Your task to perform on an android device: Open calendar and show me the second week of next month Image 0: 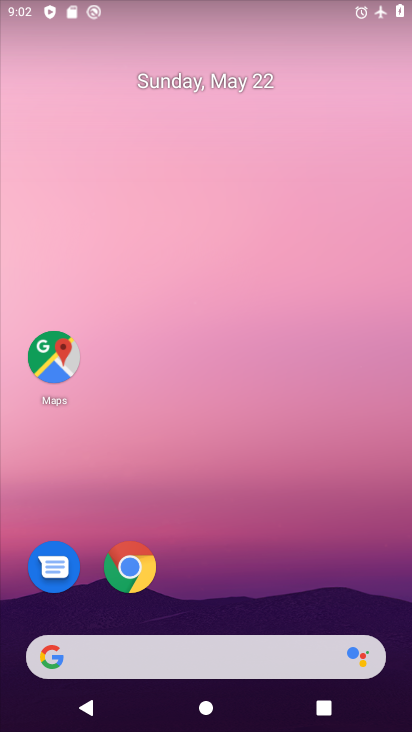
Step 0: drag from (206, 609) to (270, 7)
Your task to perform on an android device: Open calendar and show me the second week of next month Image 1: 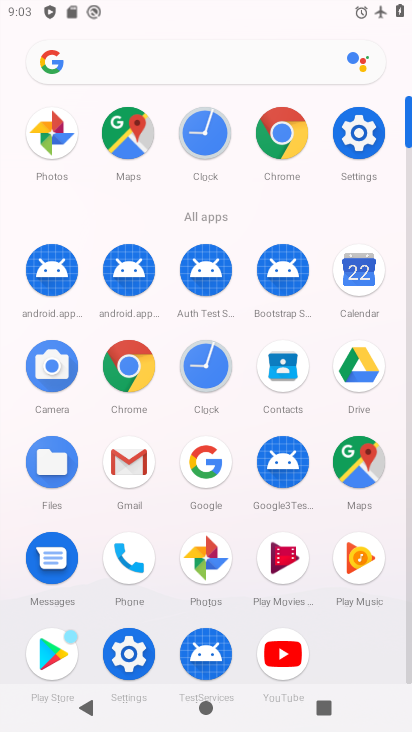
Step 1: click (351, 281)
Your task to perform on an android device: Open calendar and show me the second week of next month Image 2: 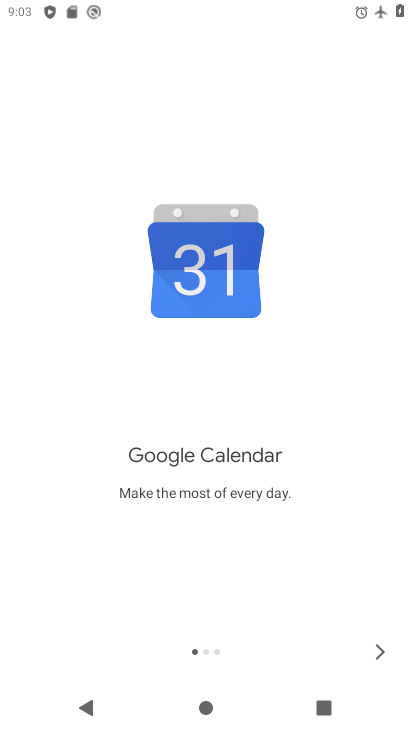
Step 2: click (381, 649)
Your task to perform on an android device: Open calendar and show me the second week of next month Image 3: 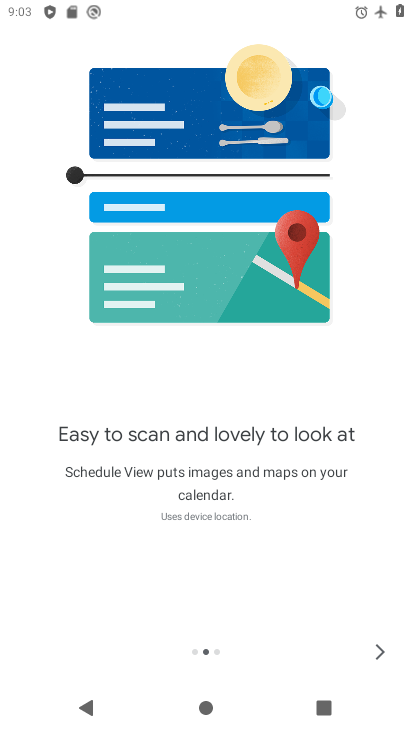
Step 3: click (377, 645)
Your task to perform on an android device: Open calendar and show me the second week of next month Image 4: 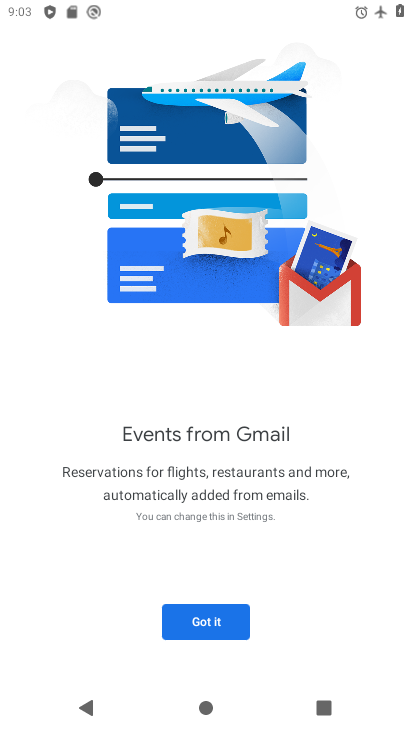
Step 4: click (201, 628)
Your task to perform on an android device: Open calendar and show me the second week of next month Image 5: 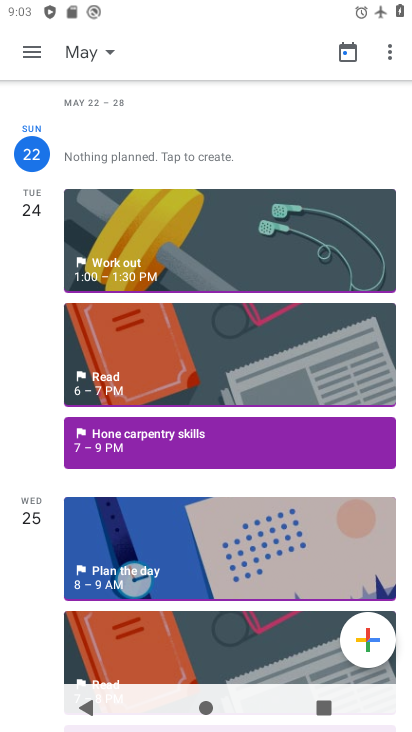
Step 5: click (26, 53)
Your task to perform on an android device: Open calendar and show me the second week of next month Image 6: 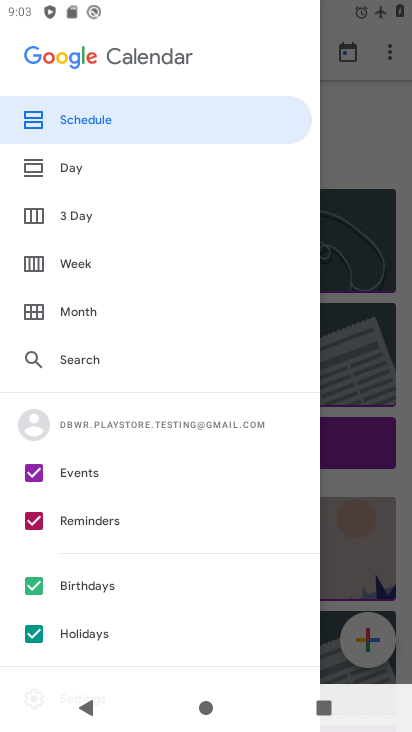
Step 6: click (82, 269)
Your task to perform on an android device: Open calendar and show me the second week of next month Image 7: 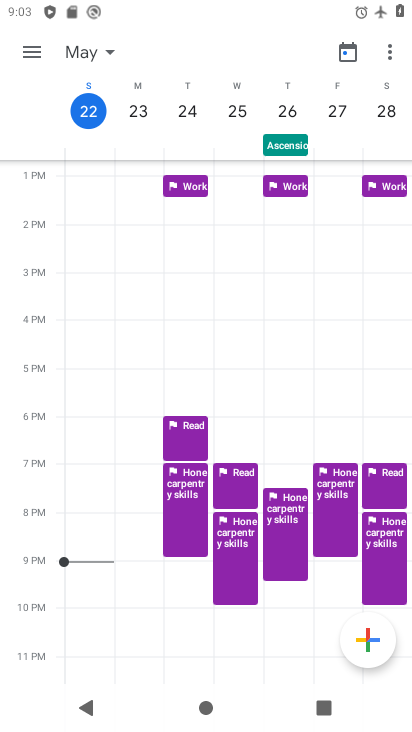
Step 7: task complete